Your task to perform on an android device: Is it going to rain tomorrow? Image 0: 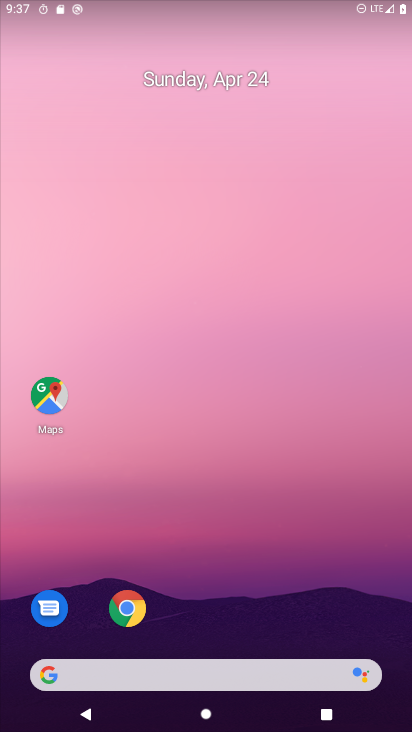
Step 0: click (108, 671)
Your task to perform on an android device: Is it going to rain tomorrow? Image 1: 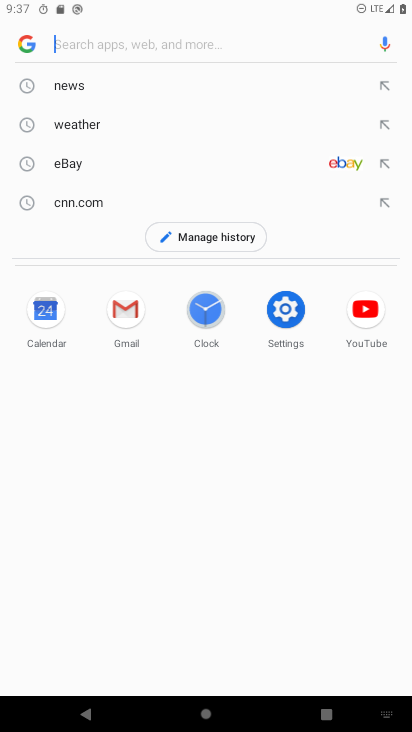
Step 1: click (28, 44)
Your task to perform on an android device: Is it going to rain tomorrow? Image 2: 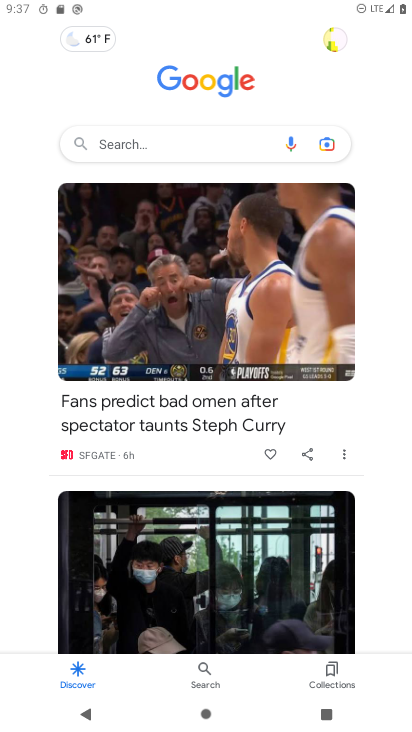
Step 2: click (87, 31)
Your task to perform on an android device: Is it going to rain tomorrow? Image 3: 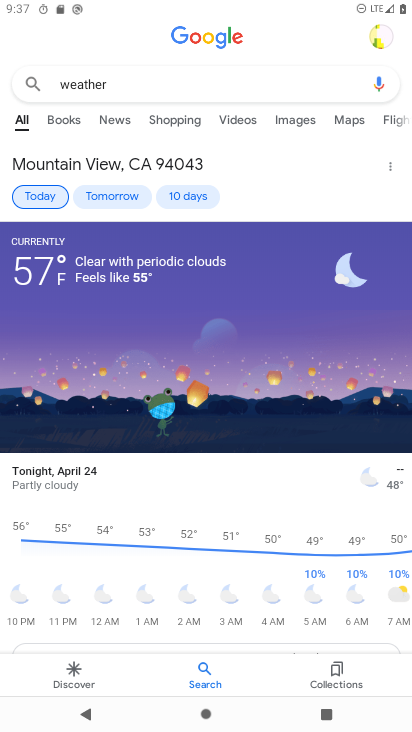
Step 3: click (116, 193)
Your task to perform on an android device: Is it going to rain tomorrow? Image 4: 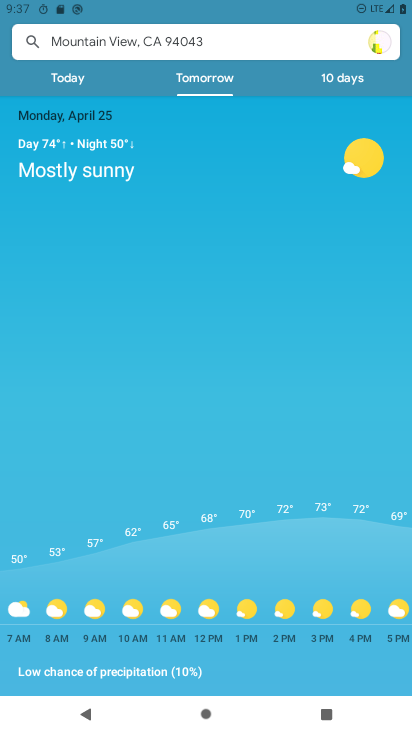
Step 4: task complete